Your task to perform on an android device: Go to Google Image 0: 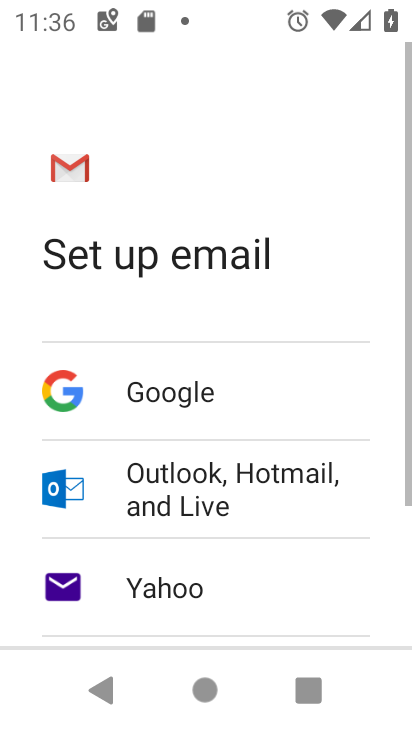
Step 0: press home button
Your task to perform on an android device: Go to Google Image 1: 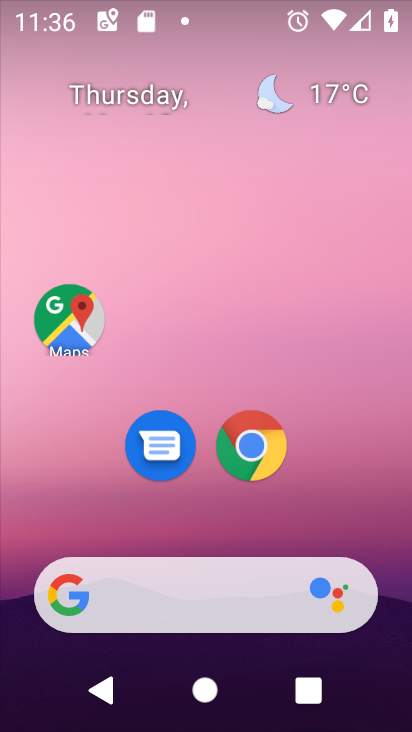
Step 1: drag from (251, 499) to (244, 174)
Your task to perform on an android device: Go to Google Image 2: 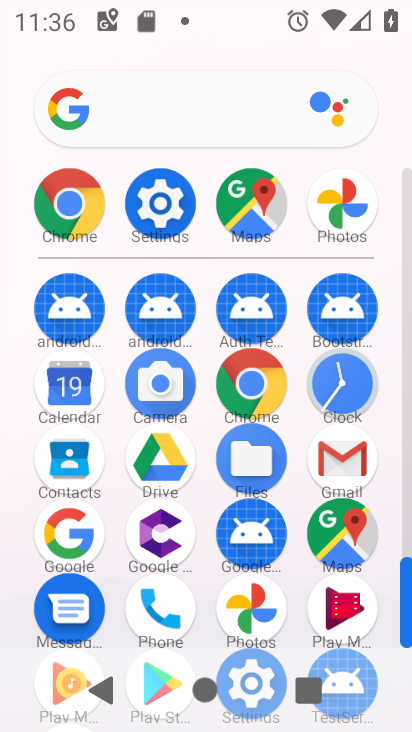
Step 2: click (56, 535)
Your task to perform on an android device: Go to Google Image 3: 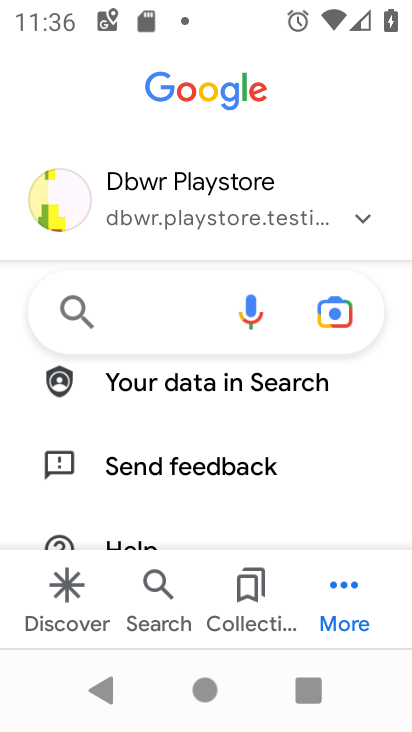
Step 3: task complete